Your task to perform on an android device: Open privacy settings Image 0: 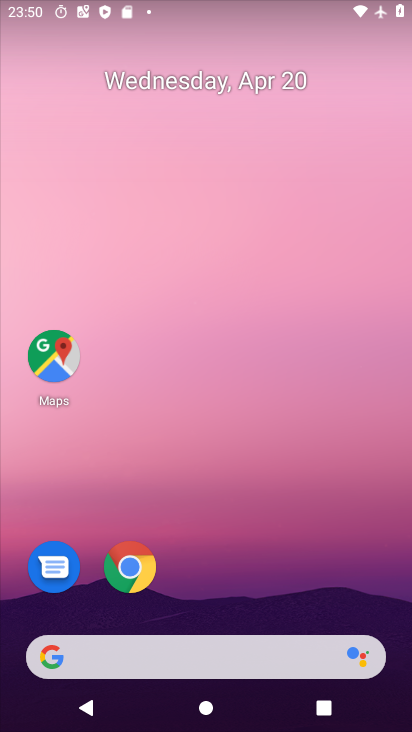
Step 0: drag from (209, 572) to (259, 210)
Your task to perform on an android device: Open privacy settings Image 1: 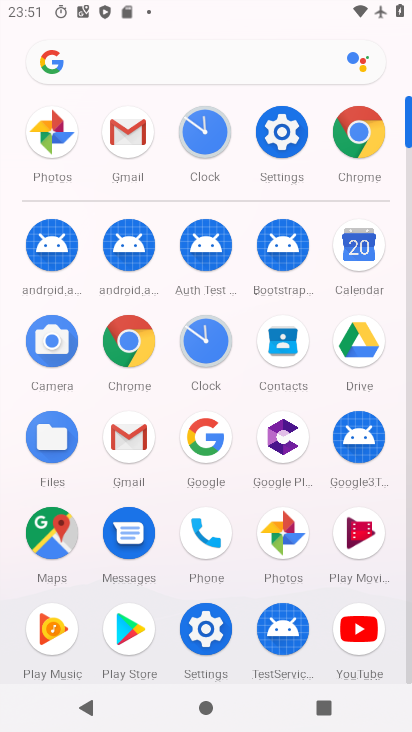
Step 1: click (128, 329)
Your task to perform on an android device: Open privacy settings Image 2: 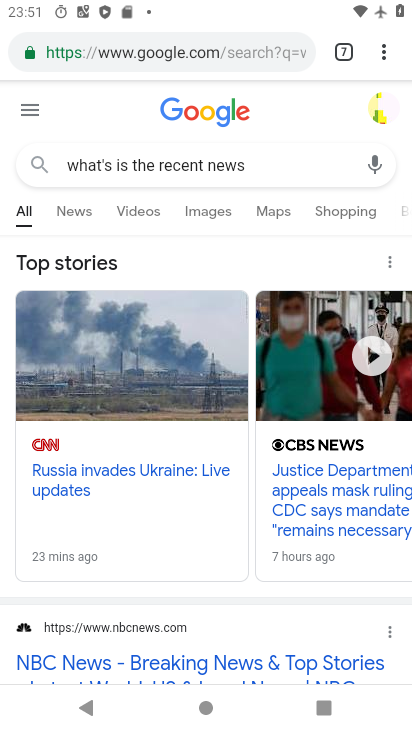
Step 2: click (381, 54)
Your task to perform on an android device: Open privacy settings Image 3: 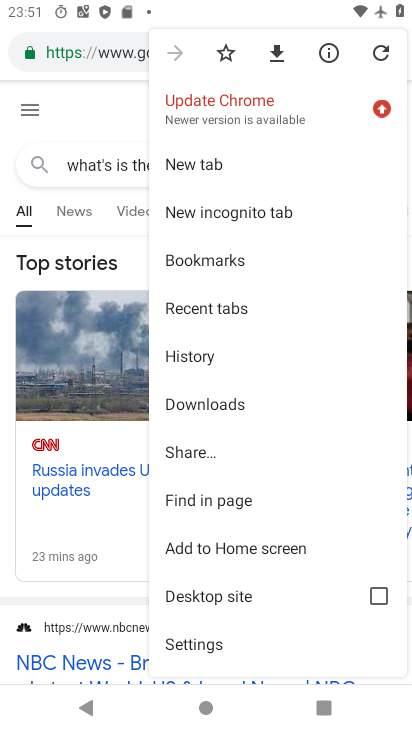
Step 3: click (211, 635)
Your task to perform on an android device: Open privacy settings Image 4: 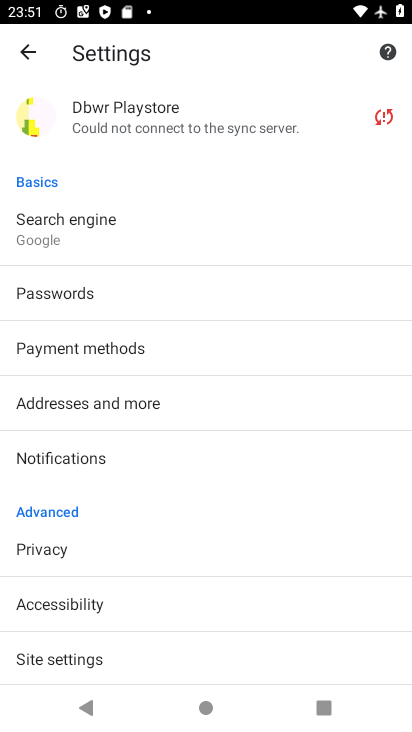
Step 4: click (155, 545)
Your task to perform on an android device: Open privacy settings Image 5: 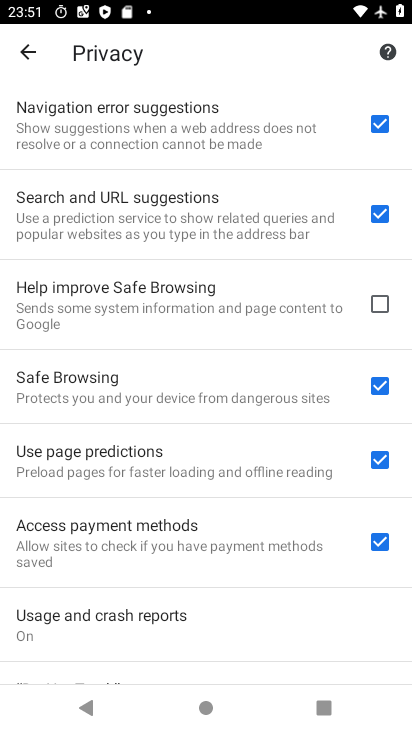
Step 5: task complete